Your task to perform on an android device: What is the news today? Image 0: 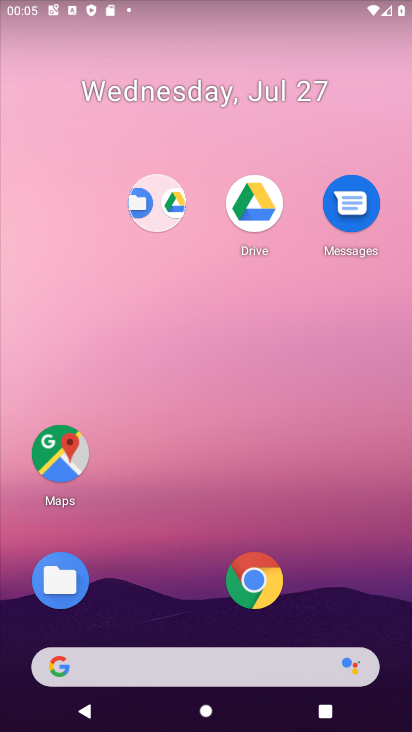
Step 0: click (139, 674)
Your task to perform on an android device: What is the news today? Image 1: 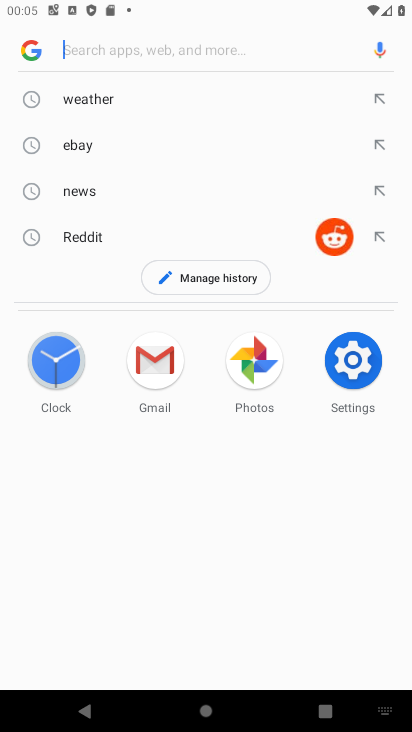
Step 1: click (19, 56)
Your task to perform on an android device: What is the news today? Image 2: 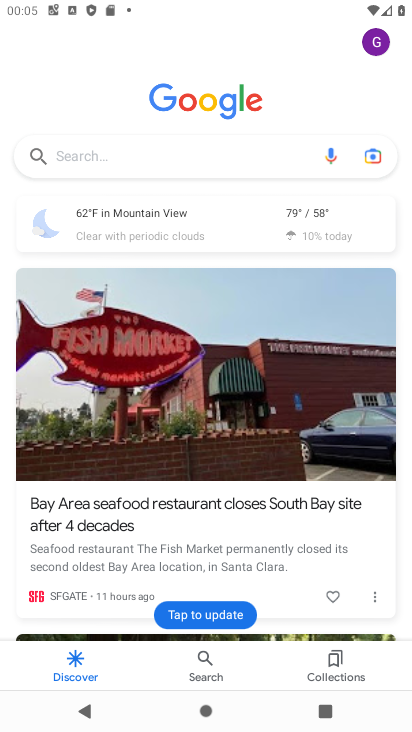
Step 2: task complete